Your task to perform on an android device: Go to internet settings Image 0: 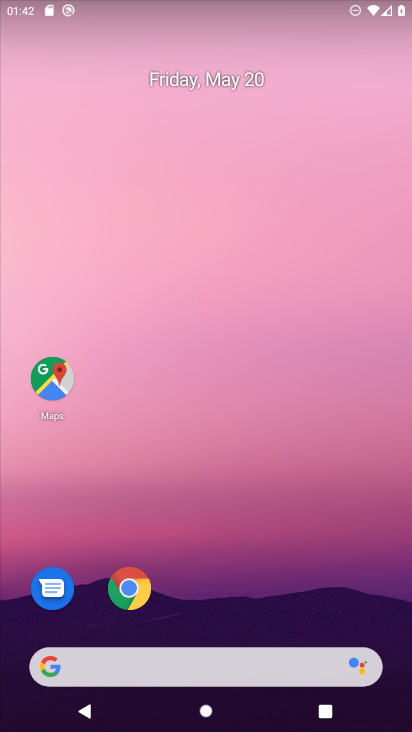
Step 0: drag from (387, 625) to (328, 61)
Your task to perform on an android device: Go to internet settings Image 1: 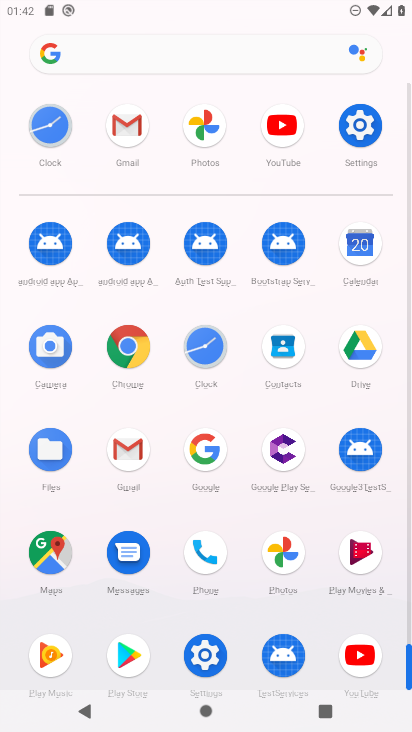
Step 1: click (202, 653)
Your task to perform on an android device: Go to internet settings Image 2: 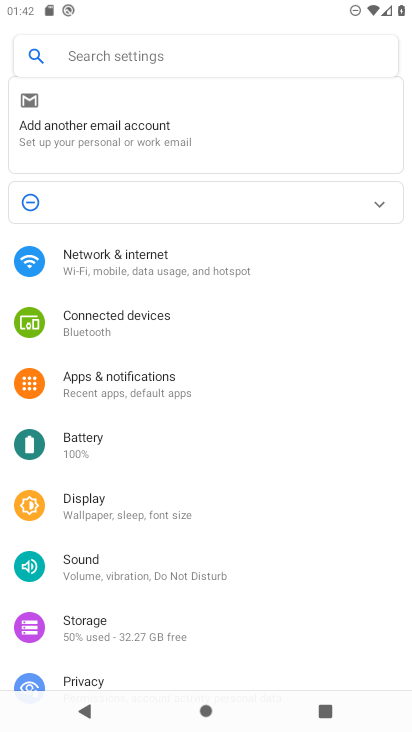
Step 2: click (127, 253)
Your task to perform on an android device: Go to internet settings Image 3: 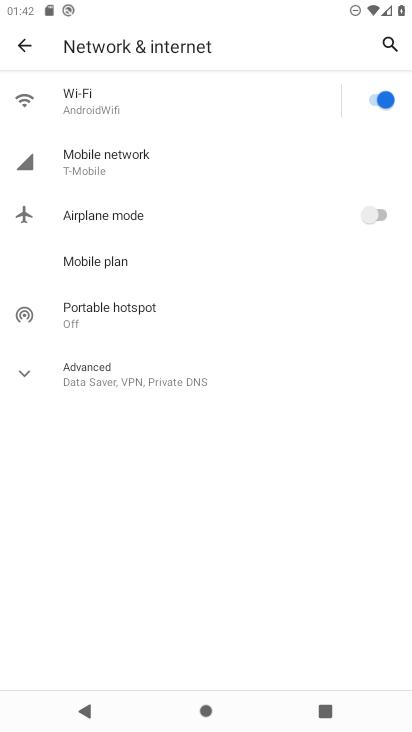
Step 3: click (26, 374)
Your task to perform on an android device: Go to internet settings Image 4: 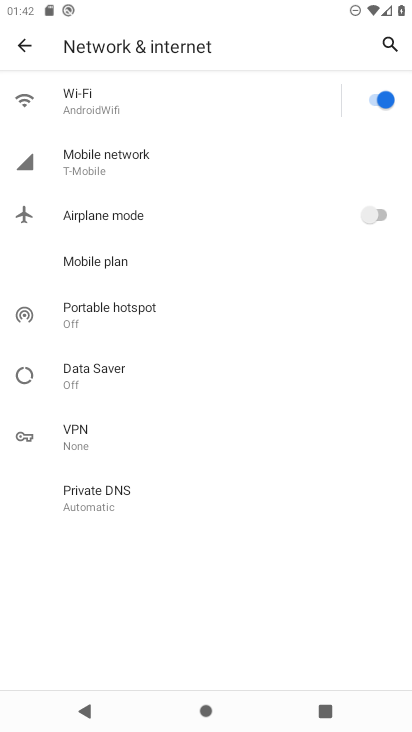
Step 4: task complete